Your task to perform on an android device: turn notification dots on Image 0: 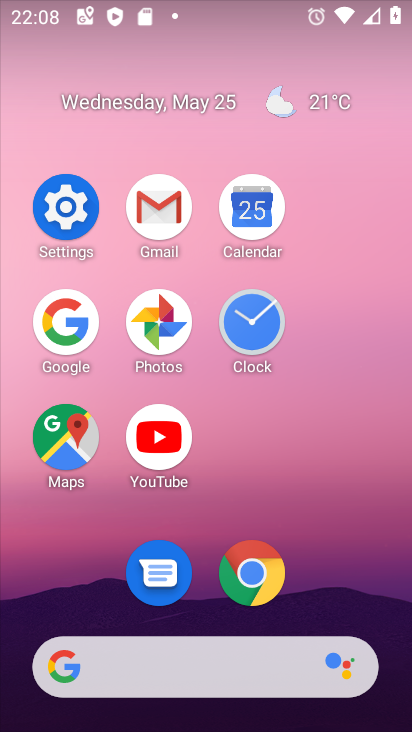
Step 0: click (76, 220)
Your task to perform on an android device: turn notification dots on Image 1: 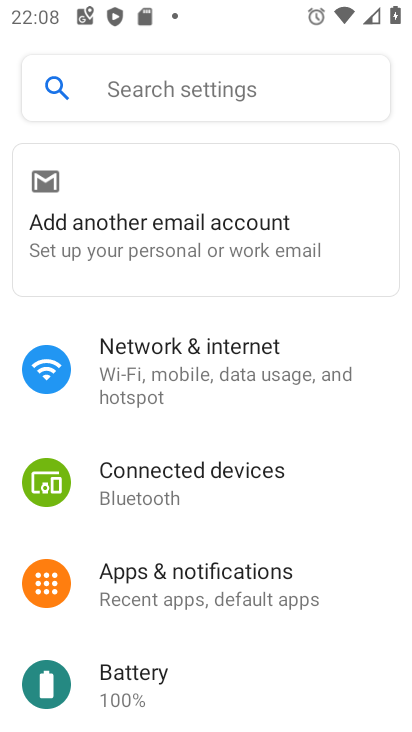
Step 1: click (299, 601)
Your task to perform on an android device: turn notification dots on Image 2: 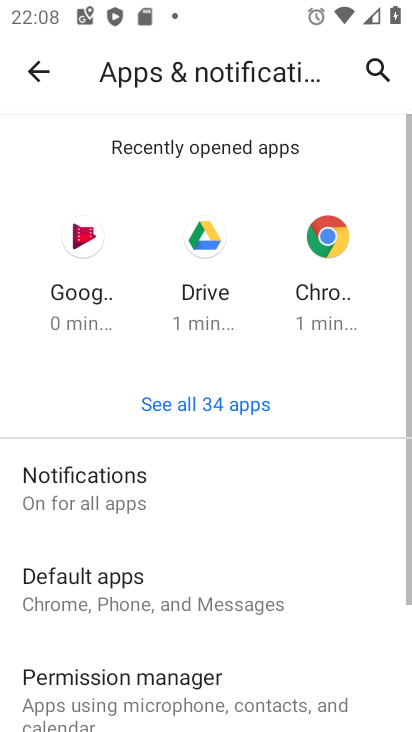
Step 2: drag from (293, 597) to (281, 153)
Your task to perform on an android device: turn notification dots on Image 3: 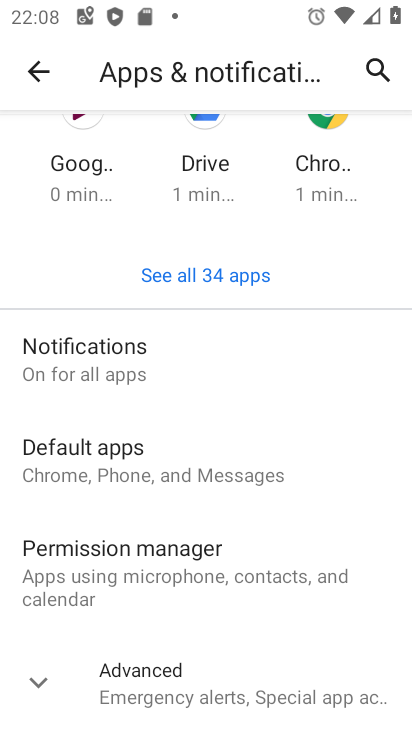
Step 3: click (142, 339)
Your task to perform on an android device: turn notification dots on Image 4: 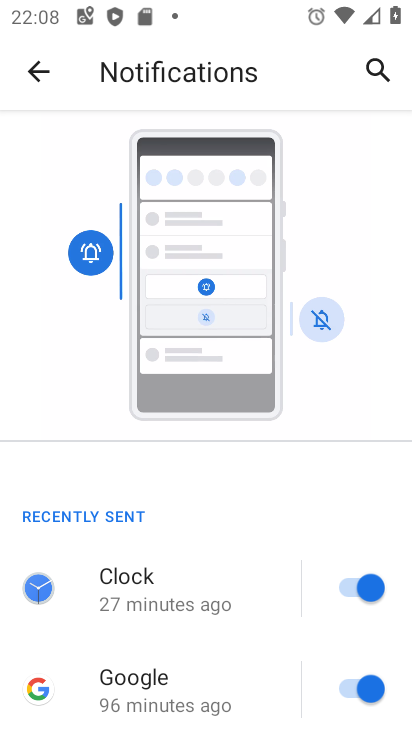
Step 4: drag from (222, 577) to (243, 60)
Your task to perform on an android device: turn notification dots on Image 5: 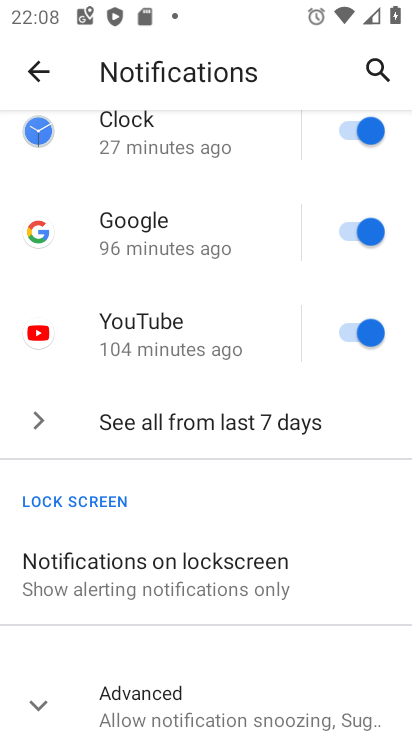
Step 5: click (160, 688)
Your task to perform on an android device: turn notification dots on Image 6: 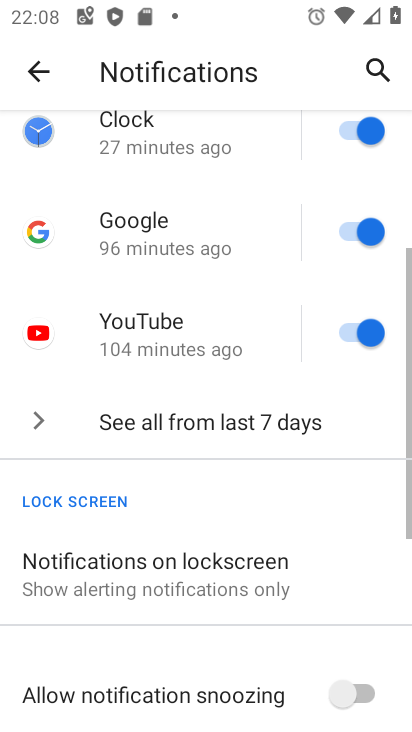
Step 6: drag from (275, 646) to (280, 159)
Your task to perform on an android device: turn notification dots on Image 7: 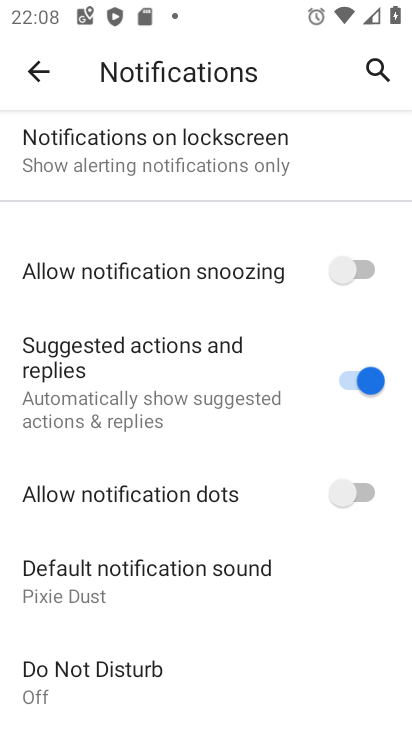
Step 7: click (357, 497)
Your task to perform on an android device: turn notification dots on Image 8: 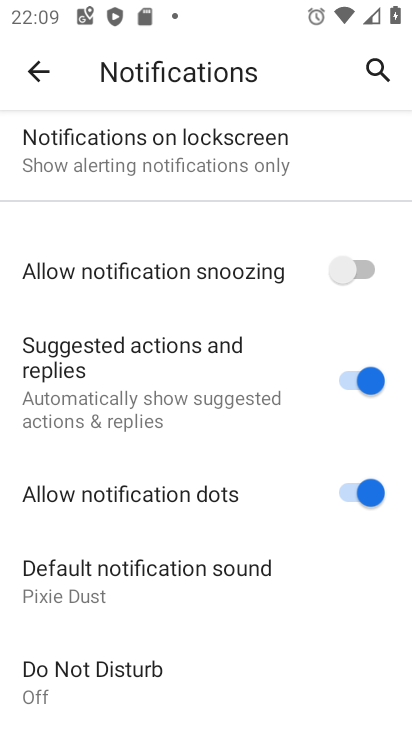
Step 8: task complete